Your task to perform on an android device: see creations saved in the google photos Image 0: 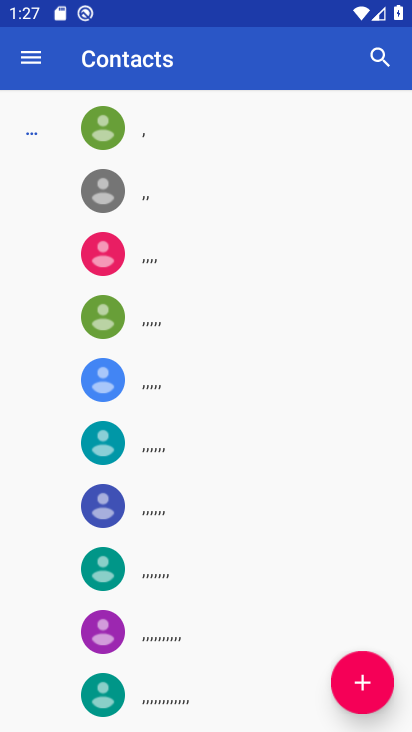
Step 0: press home button
Your task to perform on an android device: see creations saved in the google photos Image 1: 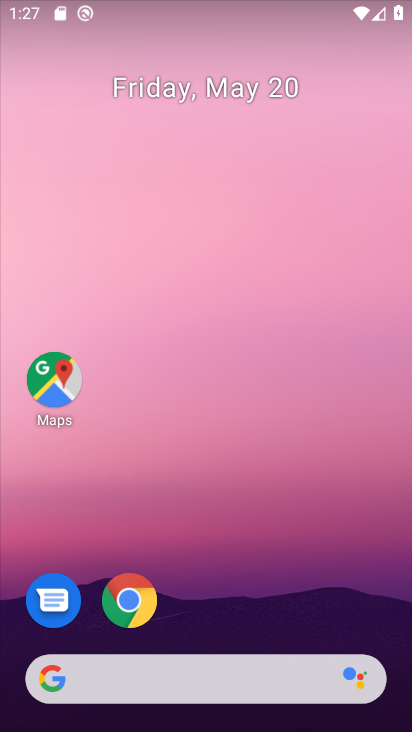
Step 1: drag from (272, 590) to (147, 56)
Your task to perform on an android device: see creations saved in the google photos Image 2: 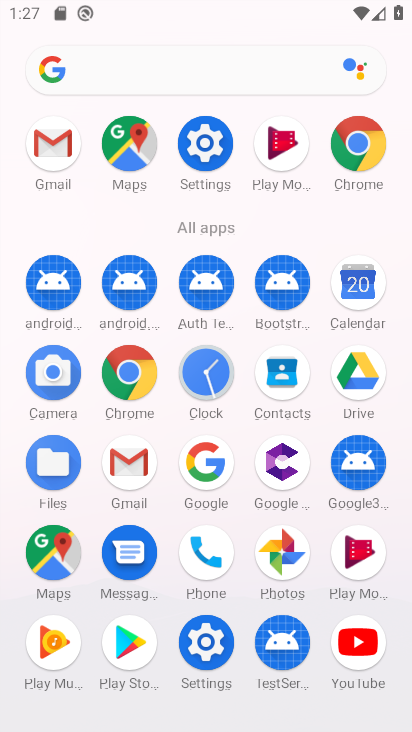
Step 2: click (296, 546)
Your task to perform on an android device: see creations saved in the google photos Image 3: 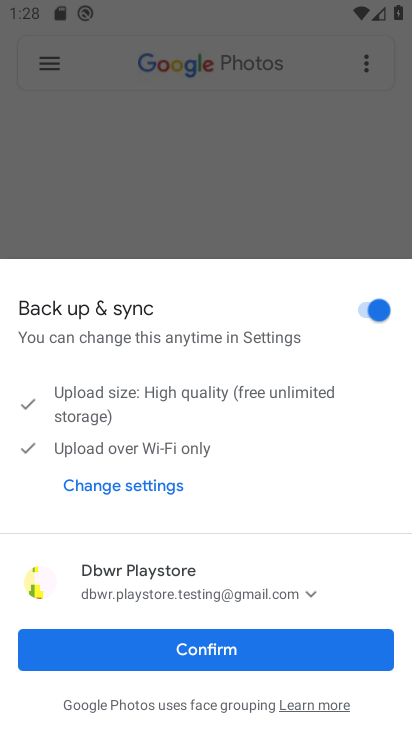
Step 3: click (239, 650)
Your task to perform on an android device: see creations saved in the google photos Image 4: 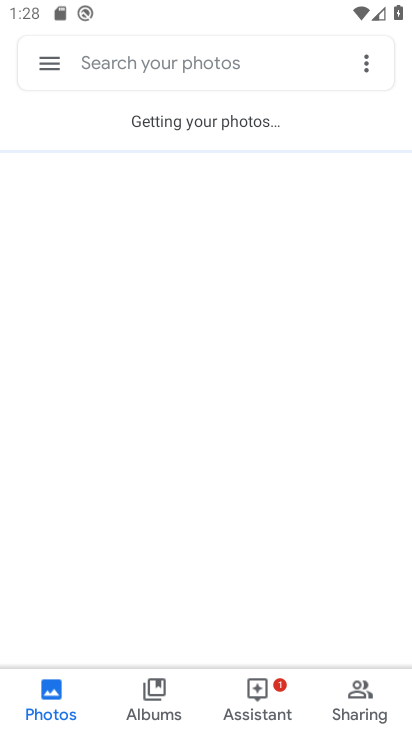
Step 4: click (151, 65)
Your task to perform on an android device: see creations saved in the google photos Image 5: 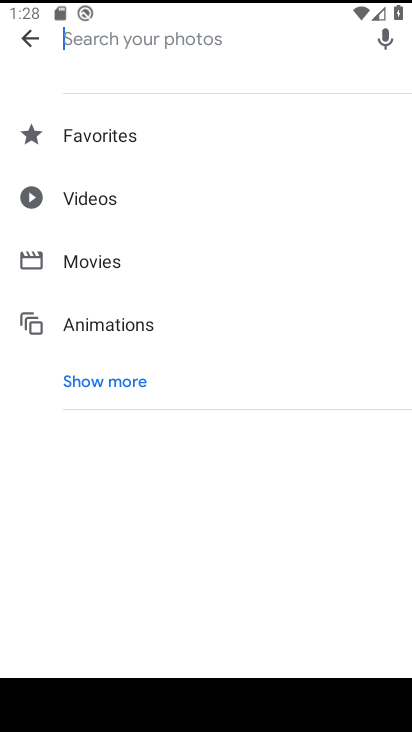
Step 5: type "creations"
Your task to perform on an android device: see creations saved in the google photos Image 6: 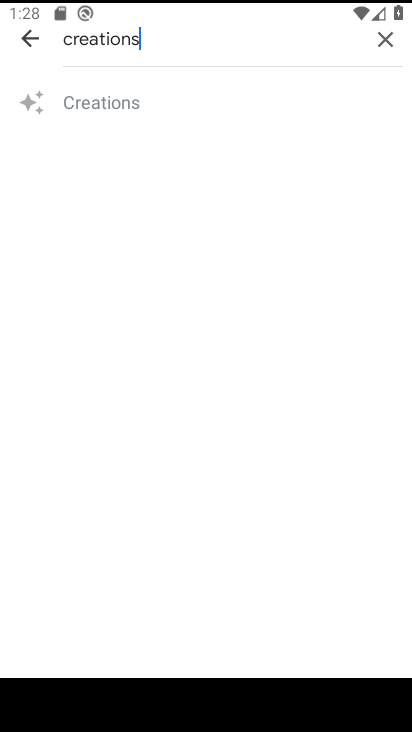
Step 6: click (166, 105)
Your task to perform on an android device: see creations saved in the google photos Image 7: 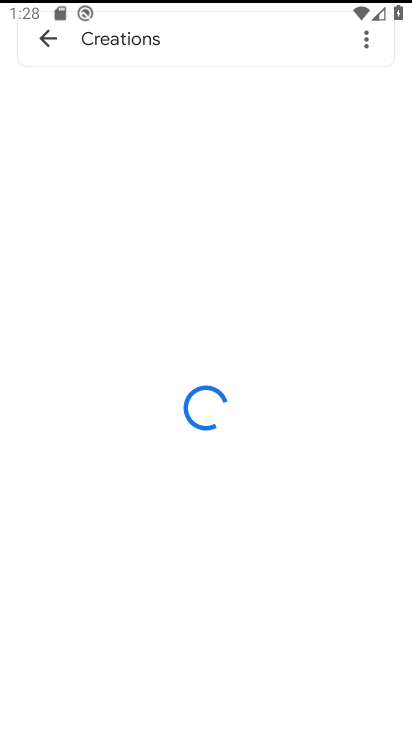
Step 7: task complete